Your task to perform on an android device: Open Android settings Image 0: 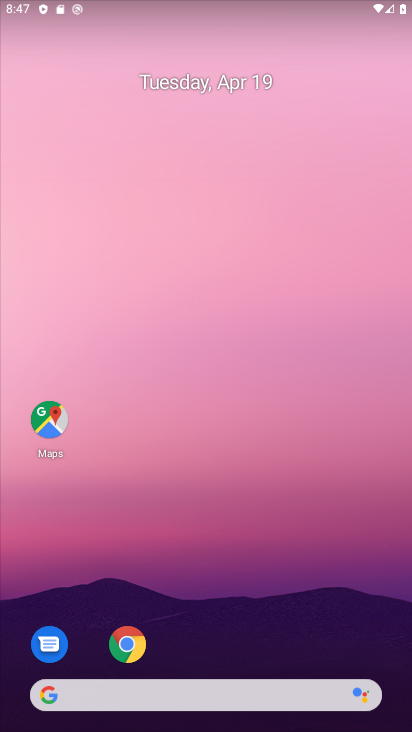
Step 0: drag from (212, 334) to (228, 43)
Your task to perform on an android device: Open Android settings Image 1: 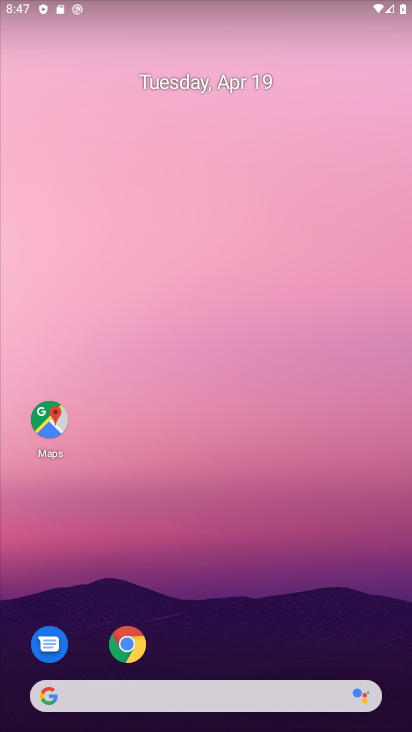
Step 1: drag from (251, 637) to (265, 27)
Your task to perform on an android device: Open Android settings Image 2: 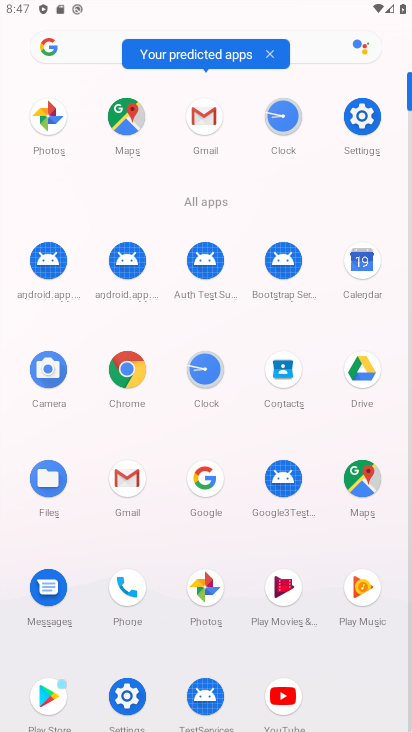
Step 2: click (364, 122)
Your task to perform on an android device: Open Android settings Image 3: 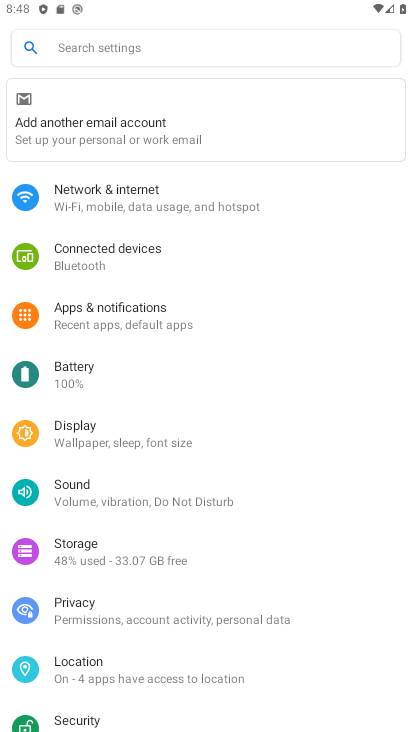
Step 3: drag from (265, 596) to (299, 199)
Your task to perform on an android device: Open Android settings Image 4: 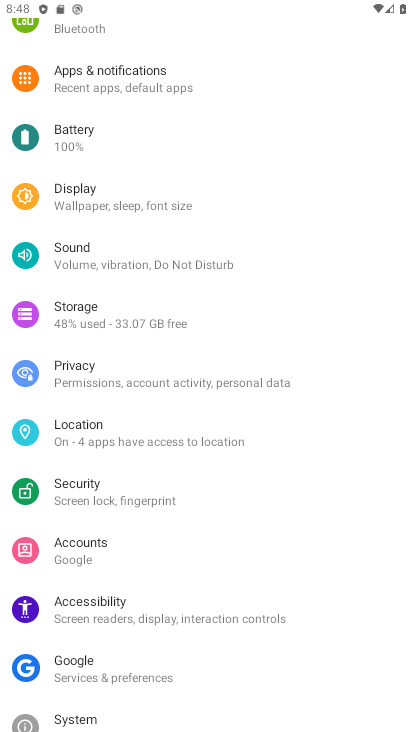
Step 4: drag from (281, 636) to (268, 165)
Your task to perform on an android device: Open Android settings Image 5: 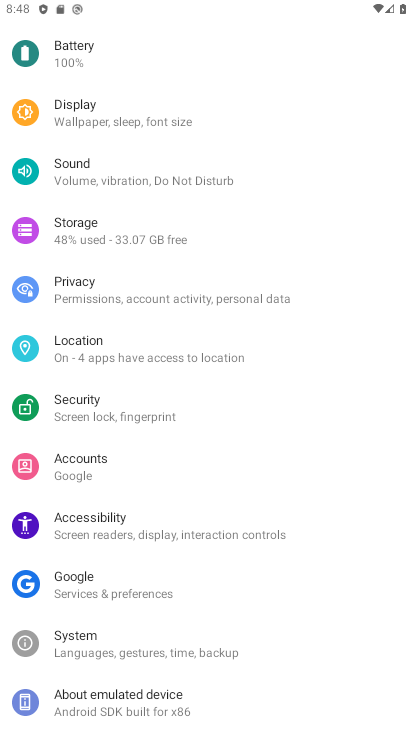
Step 5: click (162, 697)
Your task to perform on an android device: Open Android settings Image 6: 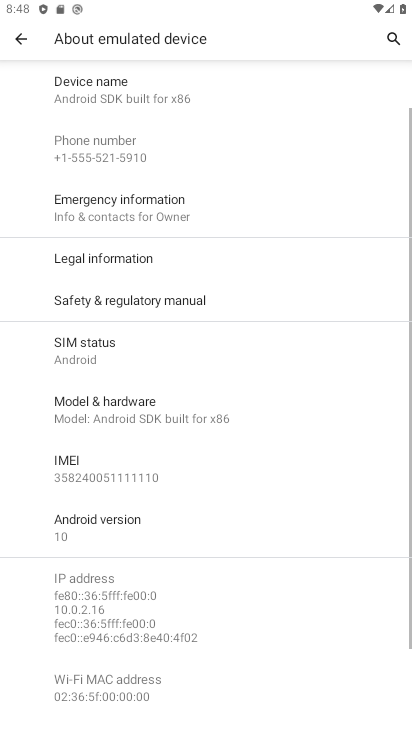
Step 6: drag from (245, 568) to (235, 372)
Your task to perform on an android device: Open Android settings Image 7: 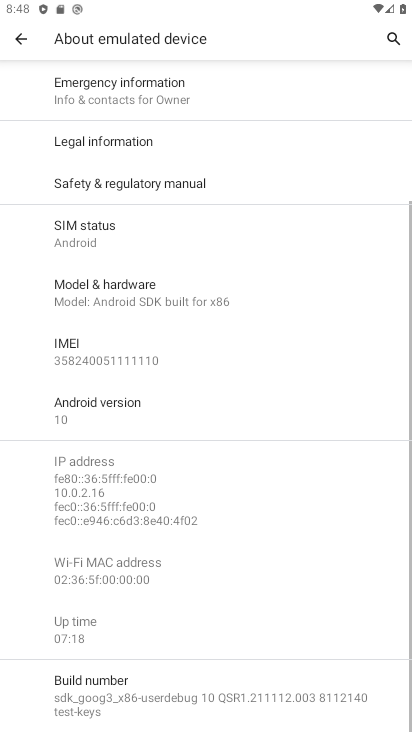
Step 7: click (62, 419)
Your task to perform on an android device: Open Android settings Image 8: 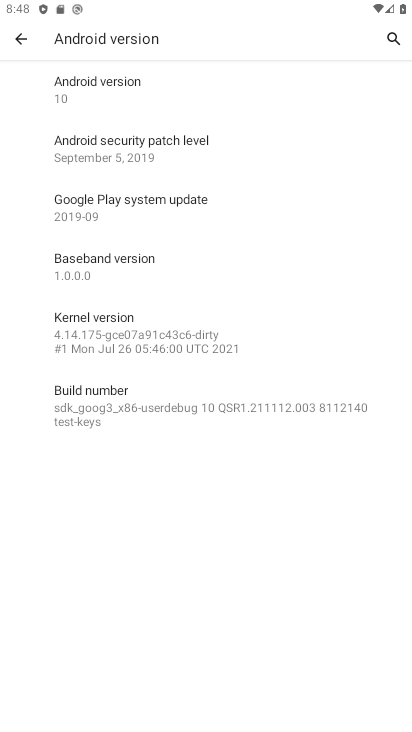
Step 8: task complete